Your task to perform on an android device: Open Amazon Image 0: 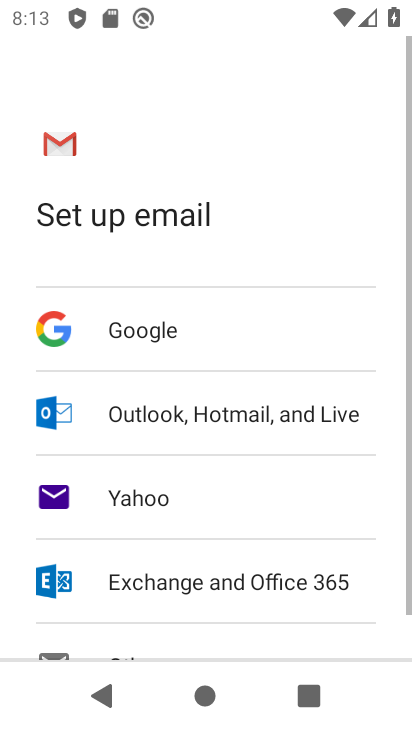
Step 0: press home button
Your task to perform on an android device: Open Amazon Image 1: 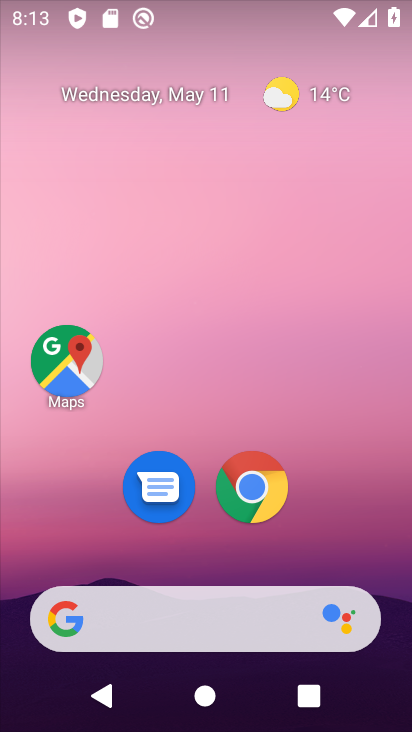
Step 1: click (233, 499)
Your task to perform on an android device: Open Amazon Image 2: 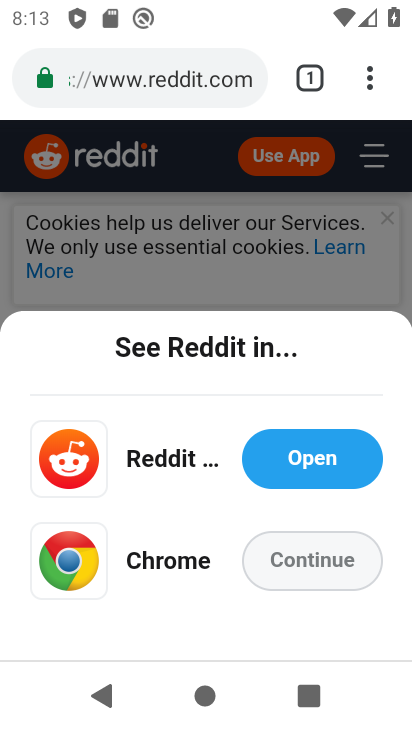
Step 2: press back button
Your task to perform on an android device: Open Amazon Image 3: 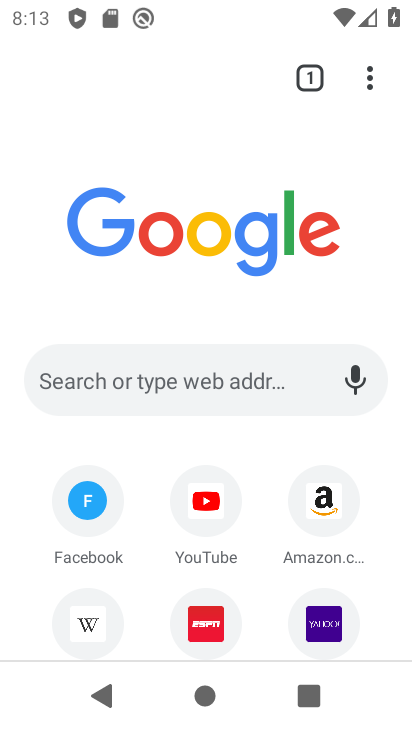
Step 3: click (328, 517)
Your task to perform on an android device: Open Amazon Image 4: 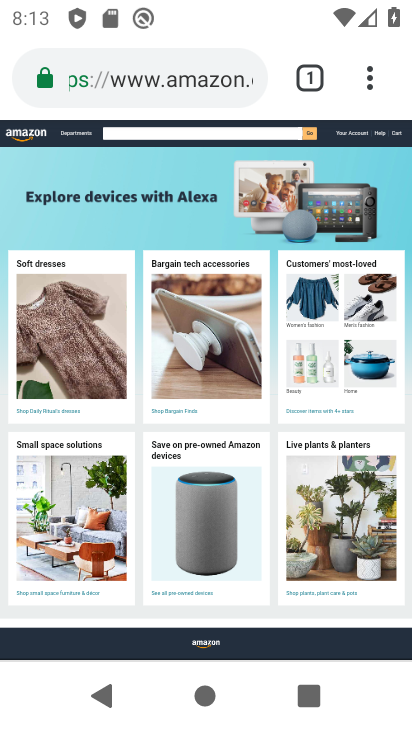
Step 4: task complete